Your task to perform on an android device: turn off improve location accuracy Image 0: 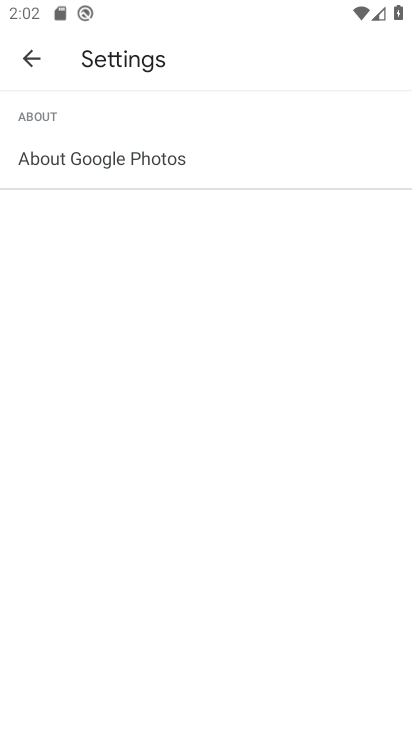
Step 0: click (133, 156)
Your task to perform on an android device: turn off improve location accuracy Image 1: 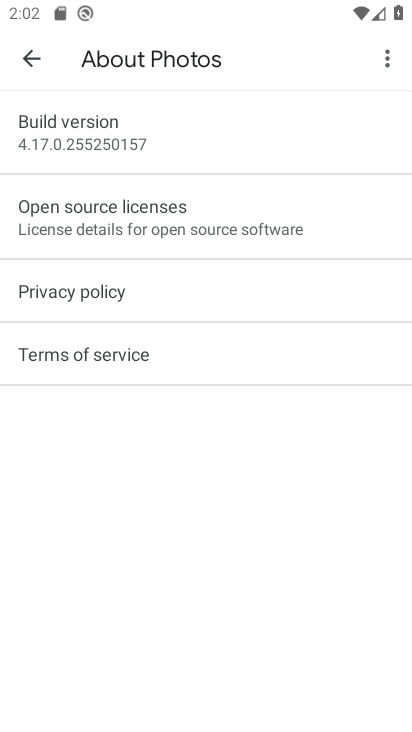
Step 1: press home button
Your task to perform on an android device: turn off improve location accuracy Image 2: 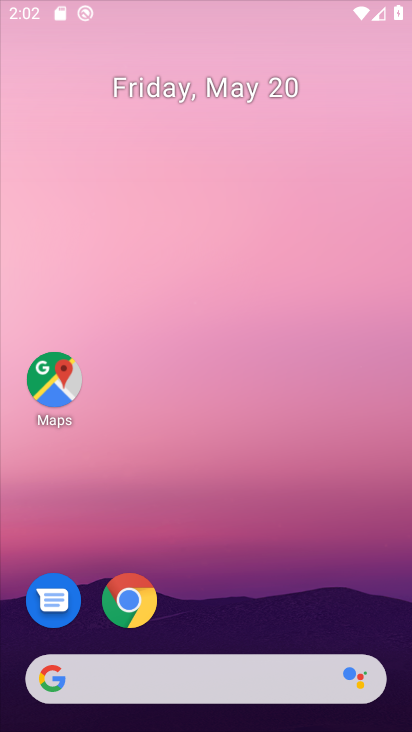
Step 2: drag from (314, 546) to (216, 44)
Your task to perform on an android device: turn off improve location accuracy Image 3: 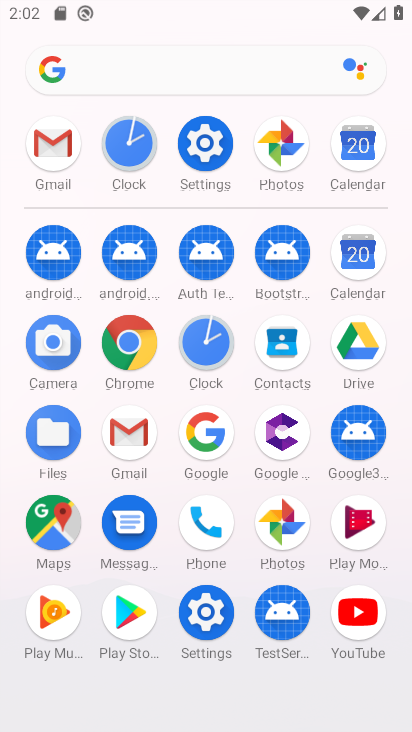
Step 3: click (207, 125)
Your task to perform on an android device: turn off improve location accuracy Image 4: 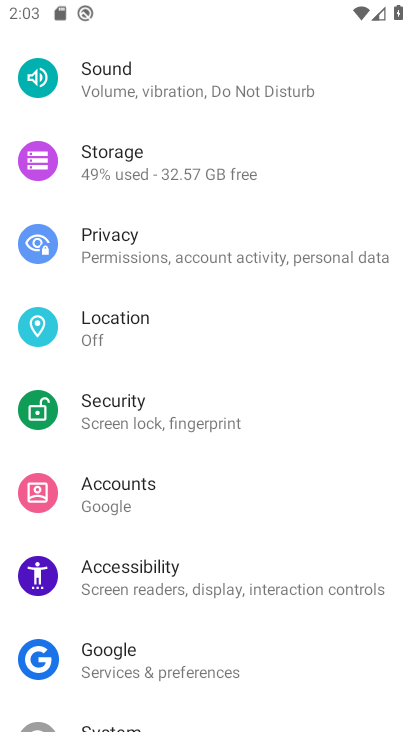
Step 4: click (157, 337)
Your task to perform on an android device: turn off improve location accuracy Image 5: 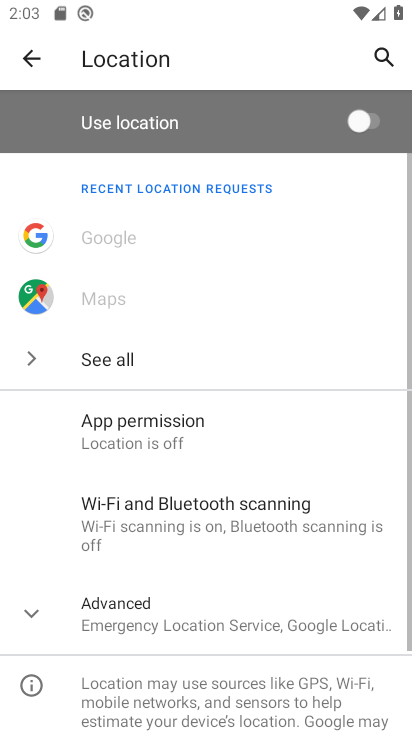
Step 5: click (245, 636)
Your task to perform on an android device: turn off improve location accuracy Image 6: 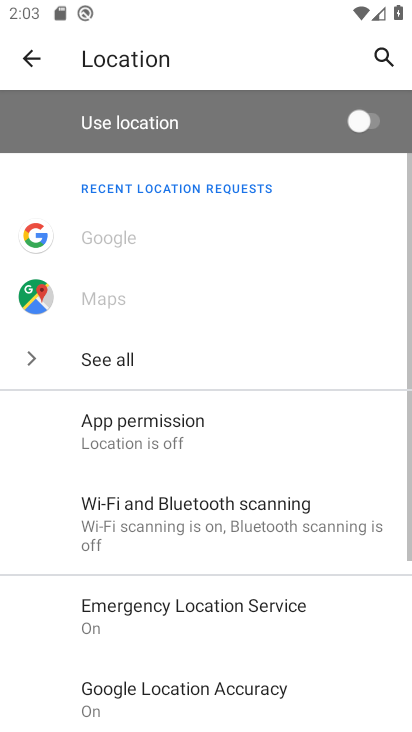
Step 6: click (218, 690)
Your task to perform on an android device: turn off improve location accuracy Image 7: 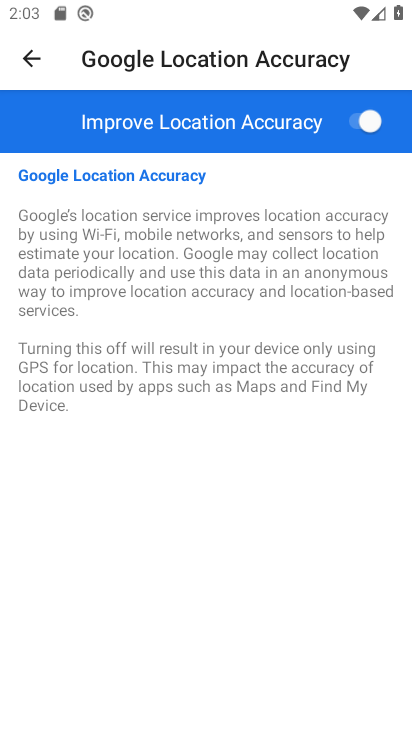
Step 7: click (363, 84)
Your task to perform on an android device: turn off improve location accuracy Image 8: 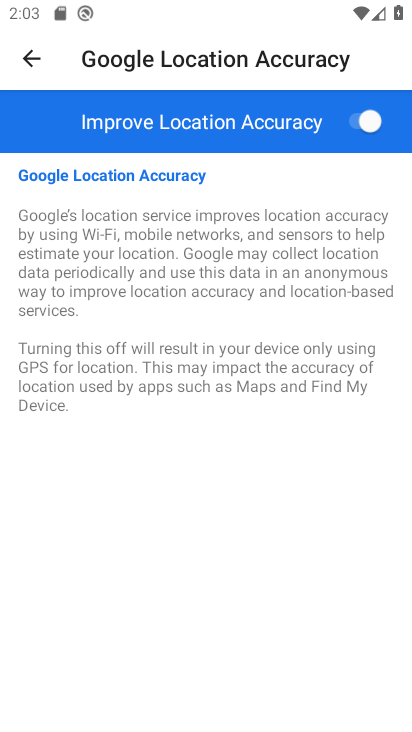
Step 8: click (370, 110)
Your task to perform on an android device: turn off improve location accuracy Image 9: 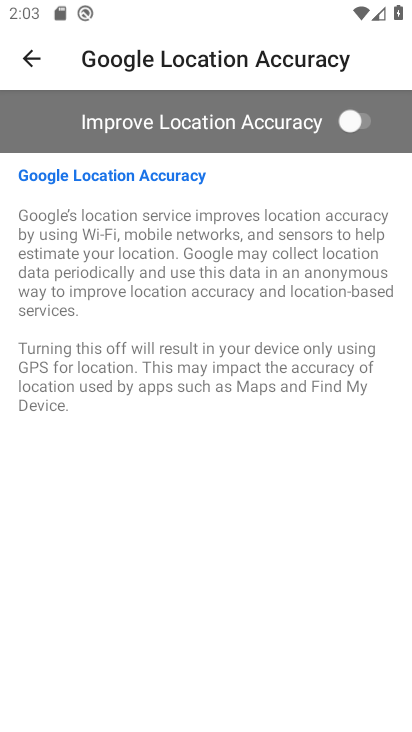
Step 9: task complete